Your task to perform on an android device: Open my contact list Image 0: 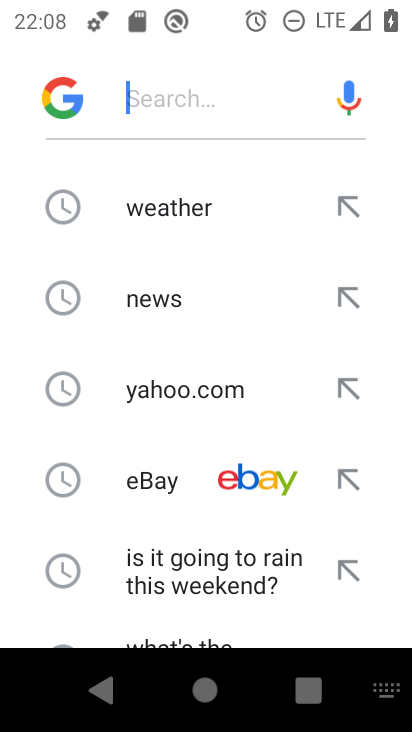
Step 0: press back button
Your task to perform on an android device: Open my contact list Image 1: 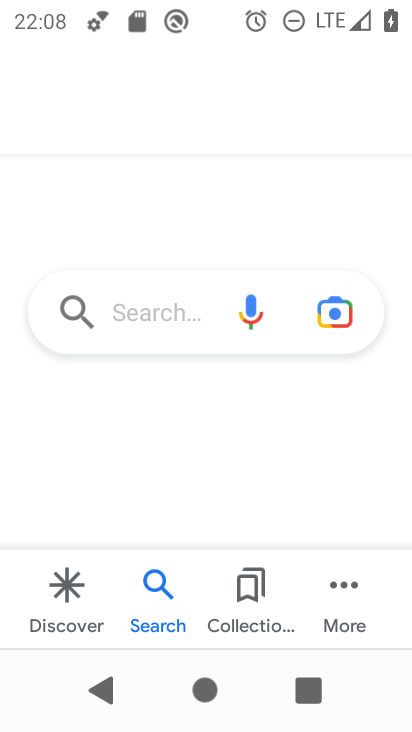
Step 1: press back button
Your task to perform on an android device: Open my contact list Image 2: 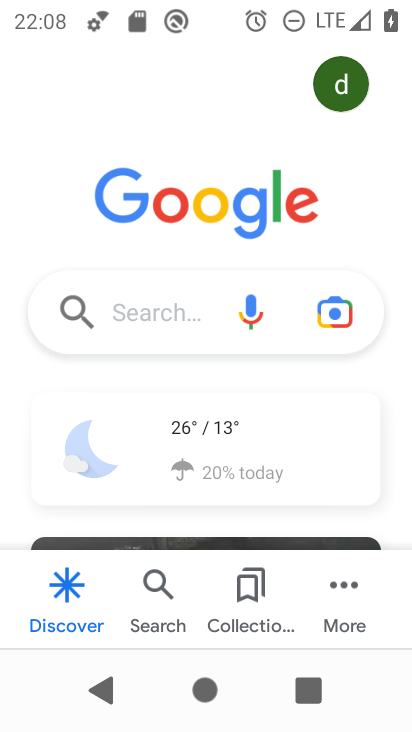
Step 2: press back button
Your task to perform on an android device: Open my contact list Image 3: 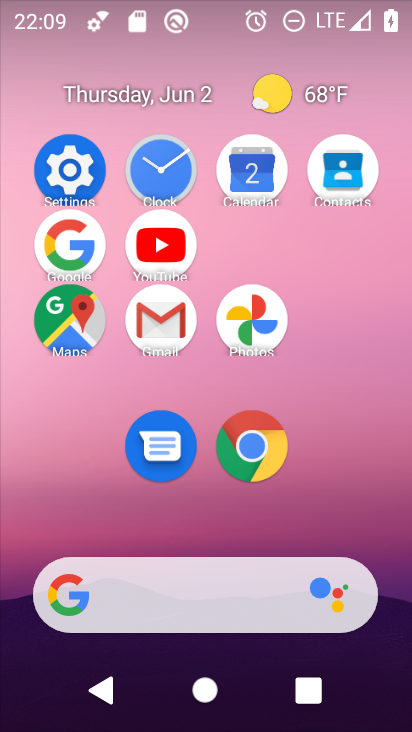
Step 3: press home button
Your task to perform on an android device: Open my contact list Image 4: 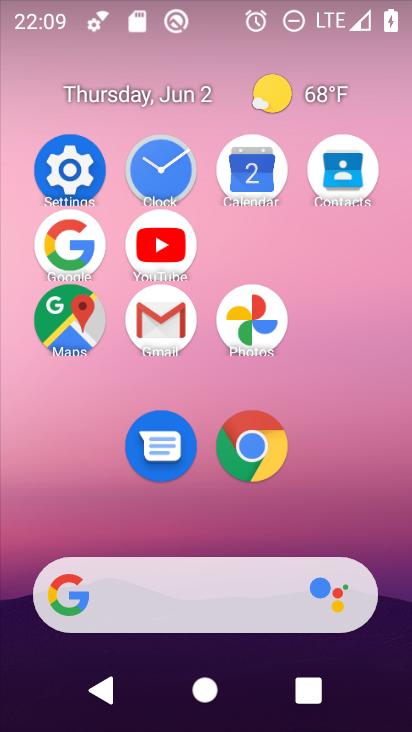
Step 4: click (351, 152)
Your task to perform on an android device: Open my contact list Image 5: 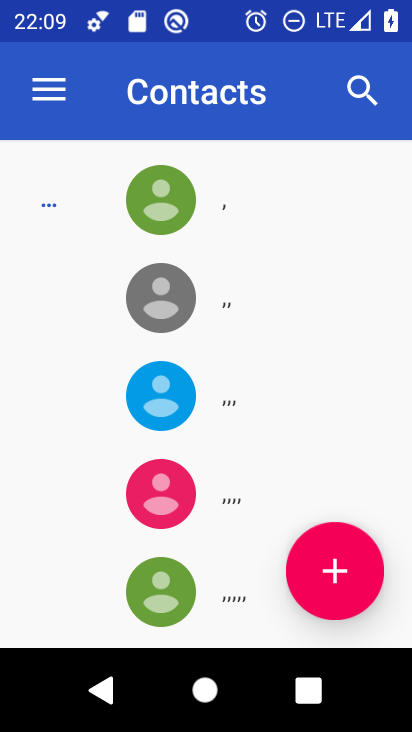
Step 5: task complete